Your task to perform on an android device: change the clock display to show seconds Image 0: 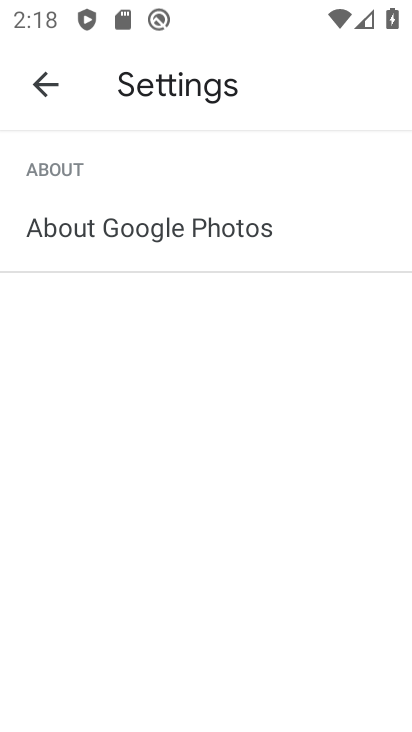
Step 0: press home button
Your task to perform on an android device: change the clock display to show seconds Image 1: 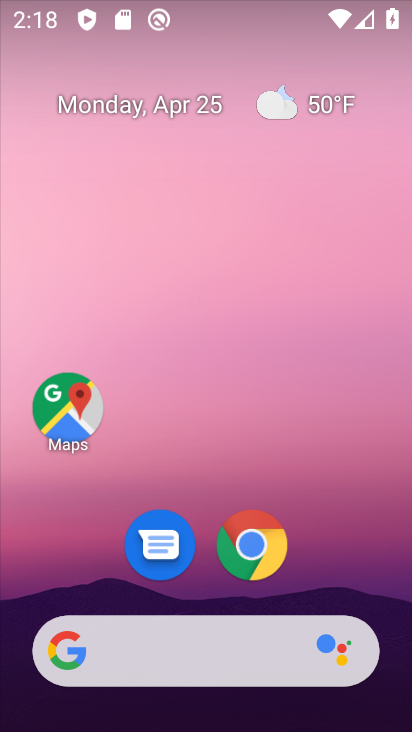
Step 1: drag from (328, 530) to (215, 4)
Your task to perform on an android device: change the clock display to show seconds Image 2: 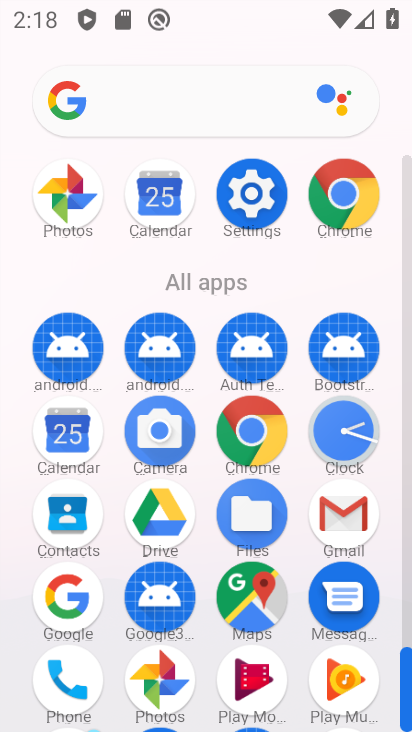
Step 2: click (336, 415)
Your task to perform on an android device: change the clock display to show seconds Image 3: 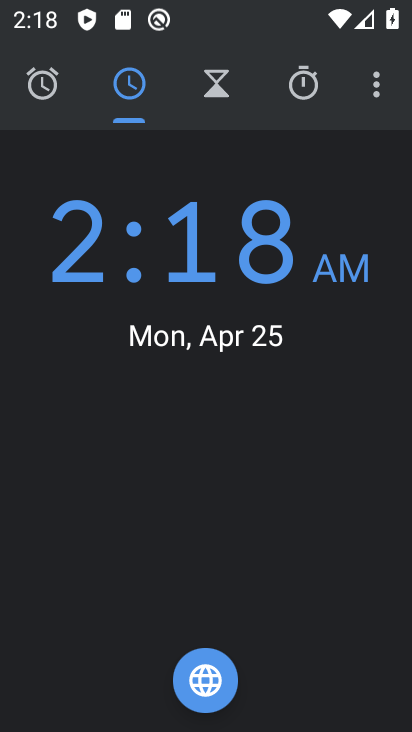
Step 3: click (373, 87)
Your task to perform on an android device: change the clock display to show seconds Image 4: 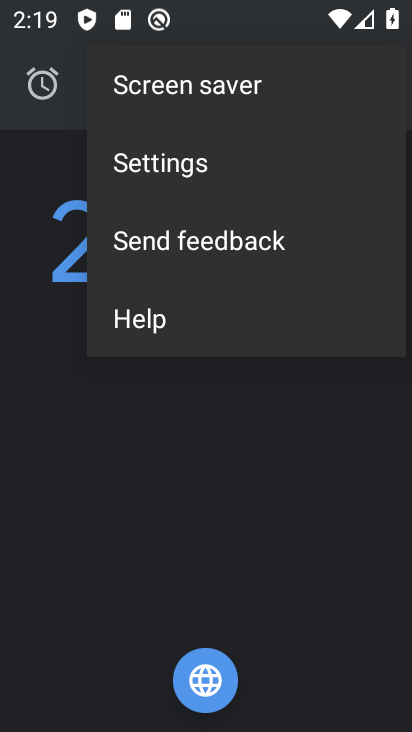
Step 4: click (288, 154)
Your task to perform on an android device: change the clock display to show seconds Image 5: 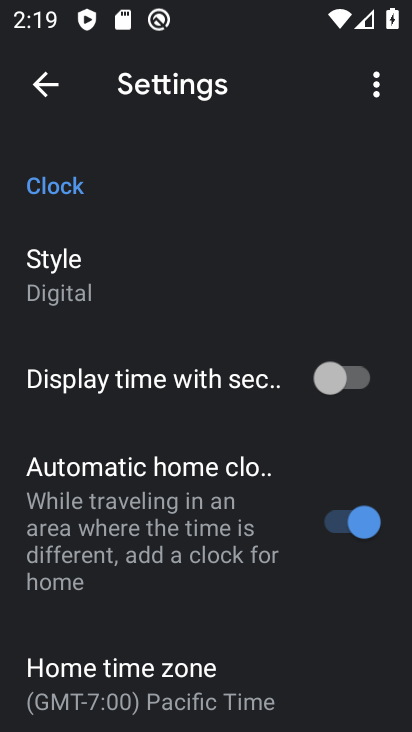
Step 5: click (347, 382)
Your task to perform on an android device: change the clock display to show seconds Image 6: 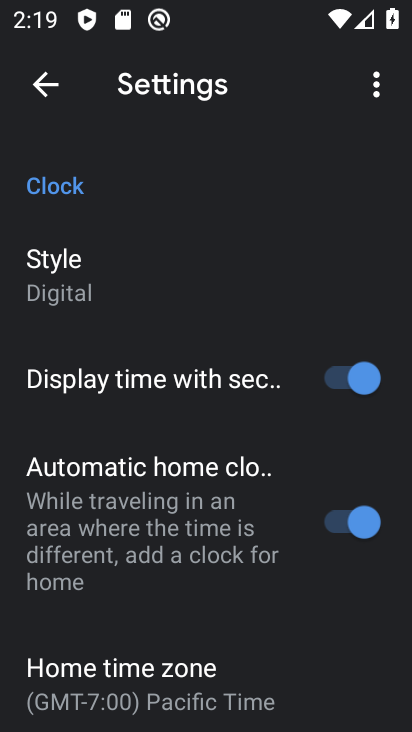
Step 6: task complete